Your task to perform on an android device: Open notification settings Image 0: 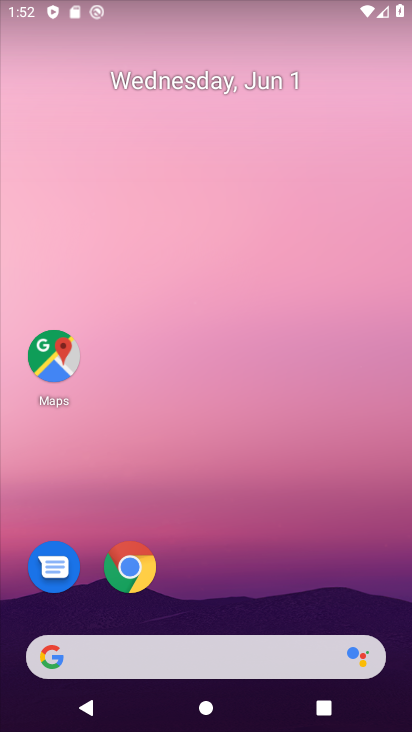
Step 0: drag from (216, 502) to (183, 115)
Your task to perform on an android device: Open notification settings Image 1: 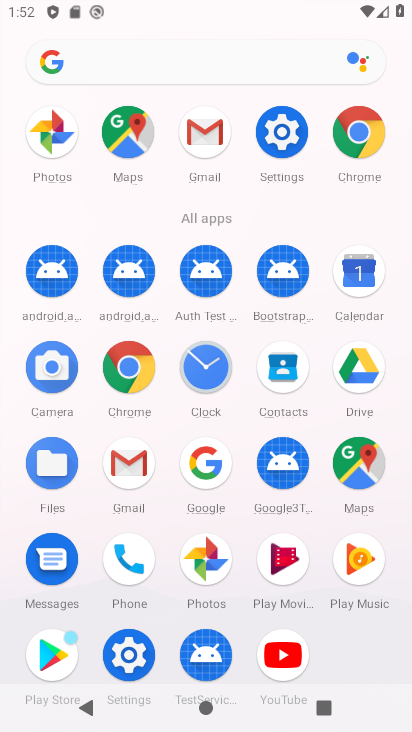
Step 1: click (285, 131)
Your task to perform on an android device: Open notification settings Image 2: 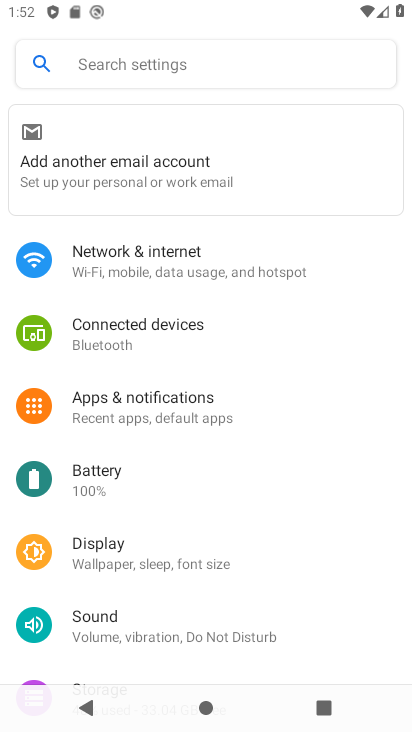
Step 2: click (154, 396)
Your task to perform on an android device: Open notification settings Image 3: 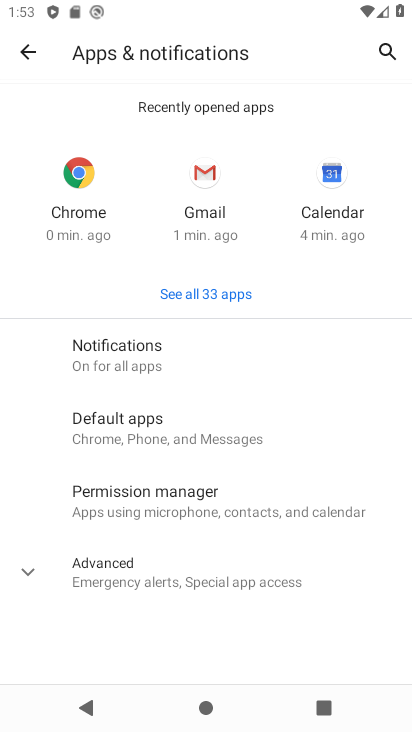
Step 3: task complete